Your task to perform on an android device: open device folders in google photos Image 0: 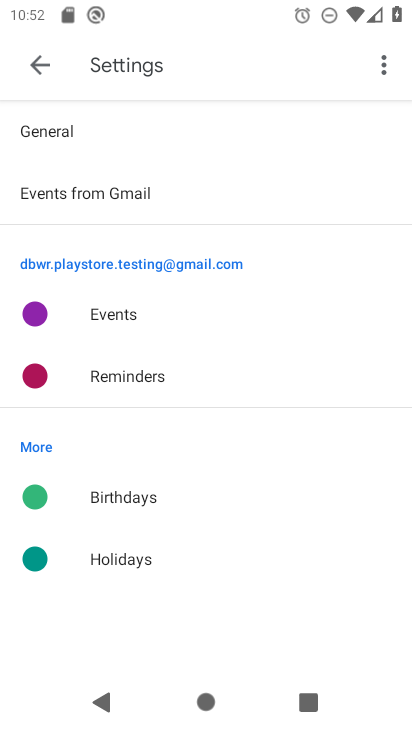
Step 0: press home button
Your task to perform on an android device: open device folders in google photos Image 1: 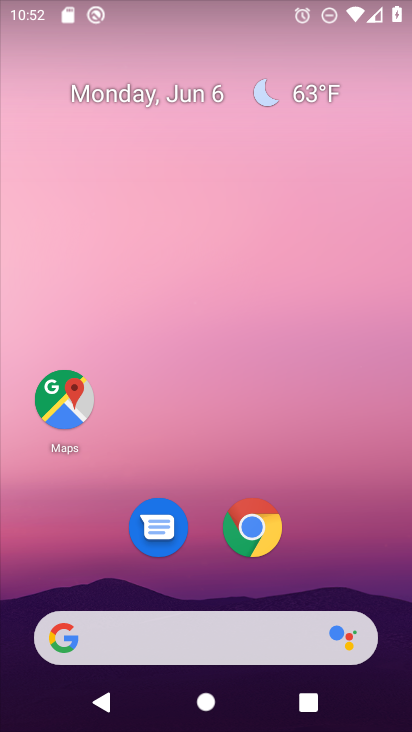
Step 1: drag from (374, 556) to (371, 177)
Your task to perform on an android device: open device folders in google photos Image 2: 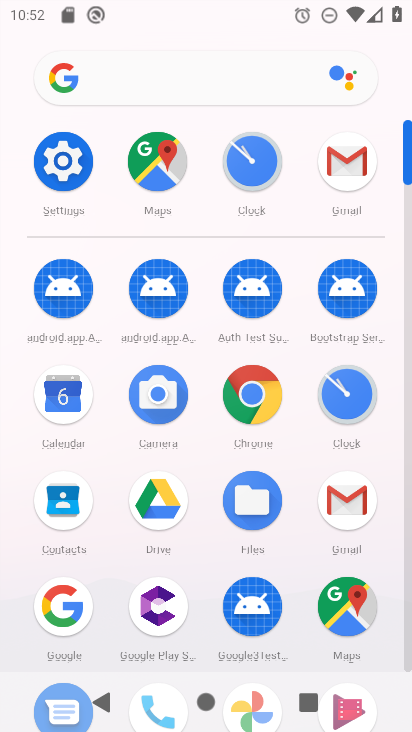
Step 2: drag from (199, 564) to (208, 363)
Your task to perform on an android device: open device folders in google photos Image 3: 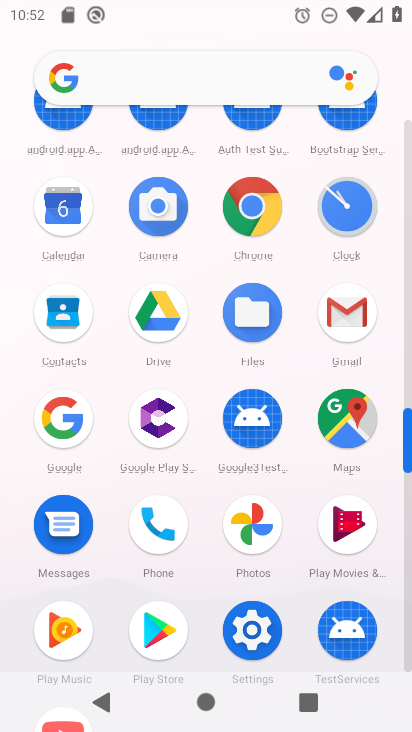
Step 3: click (239, 506)
Your task to perform on an android device: open device folders in google photos Image 4: 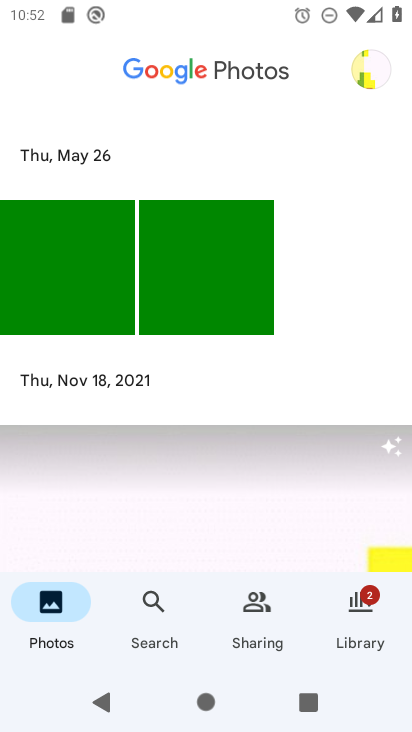
Step 4: click (382, 78)
Your task to perform on an android device: open device folders in google photos Image 5: 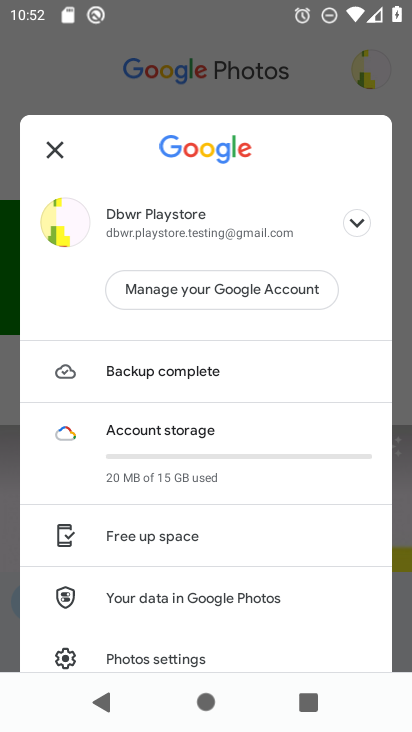
Step 5: task complete